Your task to perform on an android device: move a message to another label in the gmail app Image 0: 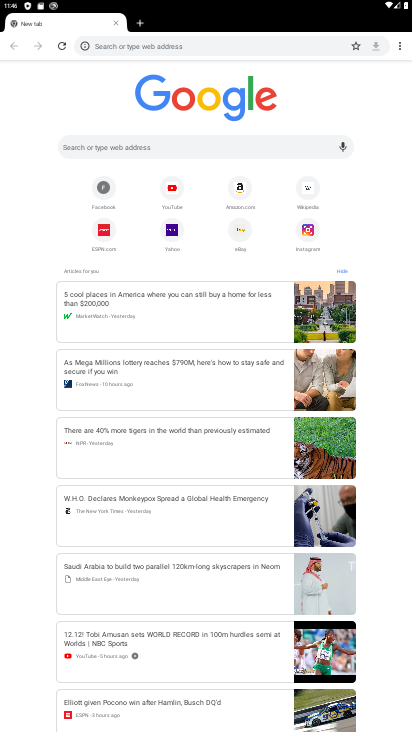
Step 0: press home button
Your task to perform on an android device: move a message to another label in the gmail app Image 1: 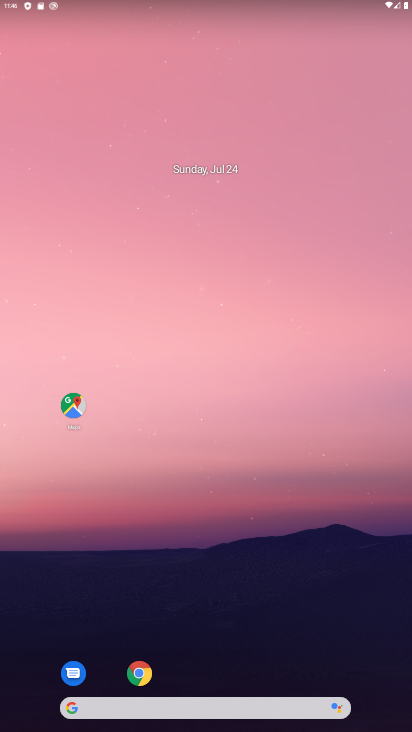
Step 1: drag from (221, 716) to (374, 43)
Your task to perform on an android device: move a message to another label in the gmail app Image 2: 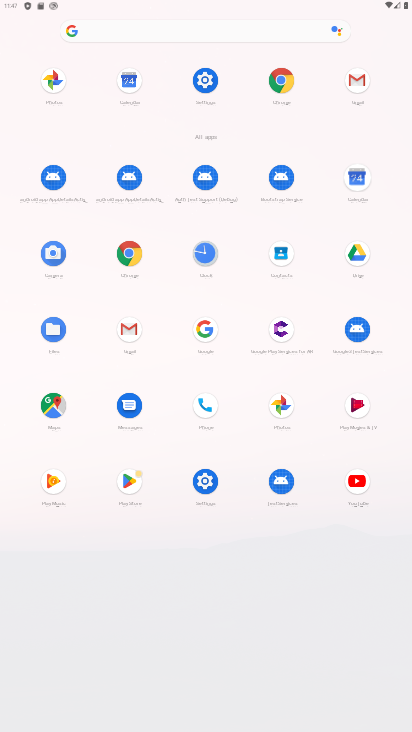
Step 2: click (357, 86)
Your task to perform on an android device: move a message to another label in the gmail app Image 3: 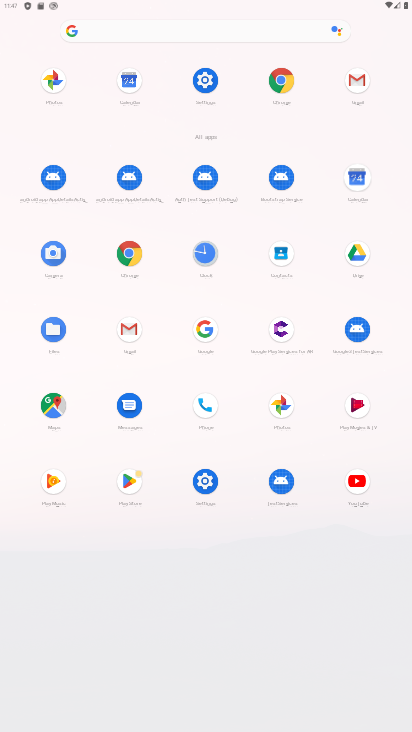
Step 3: click (357, 86)
Your task to perform on an android device: move a message to another label in the gmail app Image 4: 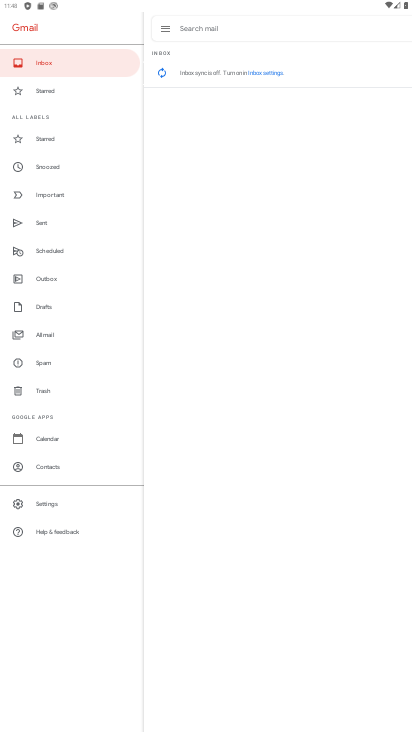
Step 4: task complete